Your task to perform on an android device: Add usb-c to usb-b to the cart on newegg, then select checkout. Image 0: 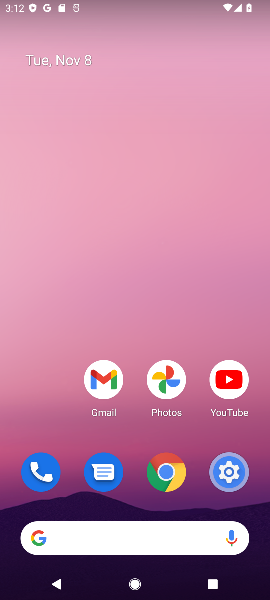
Step 0: click (124, 532)
Your task to perform on an android device: Add usb-c to usb-b to the cart on newegg, then select checkout. Image 1: 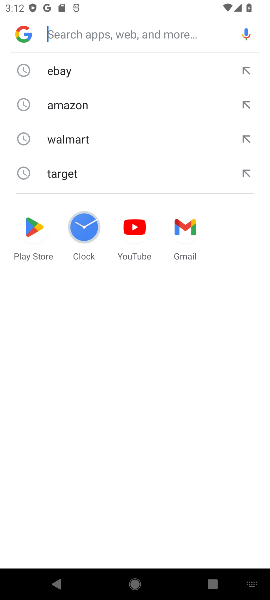
Step 1: type "newegg"
Your task to perform on an android device: Add usb-c to usb-b to the cart on newegg, then select checkout. Image 2: 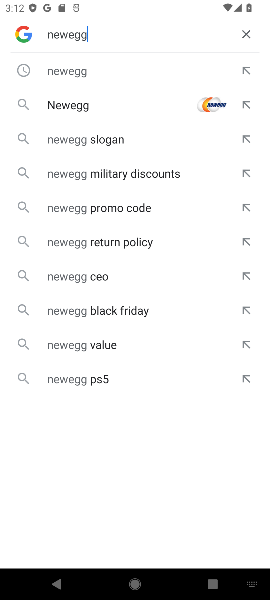
Step 2: click (89, 101)
Your task to perform on an android device: Add usb-c to usb-b to the cart on newegg, then select checkout. Image 3: 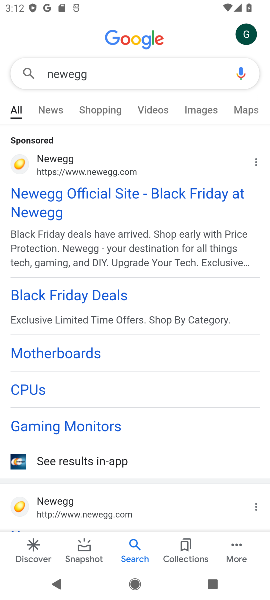
Step 3: click (31, 190)
Your task to perform on an android device: Add usb-c to usb-b to the cart on newegg, then select checkout. Image 4: 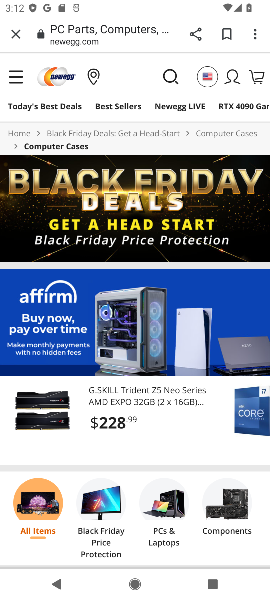
Step 4: click (169, 75)
Your task to perform on an android device: Add usb-c to usb-b to the cart on newegg, then select checkout. Image 5: 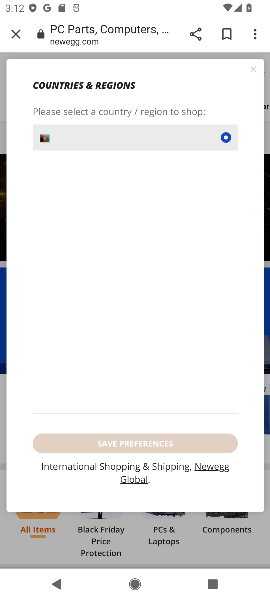
Step 5: task complete